Your task to perform on an android device: What's the weather going to be tomorrow? Image 0: 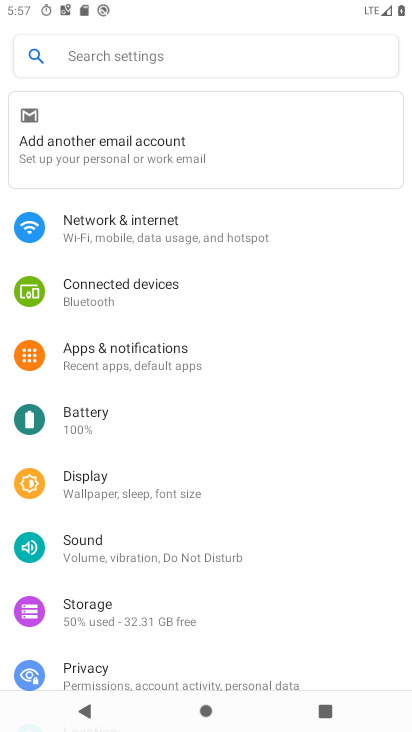
Step 0: press home button
Your task to perform on an android device: What's the weather going to be tomorrow? Image 1: 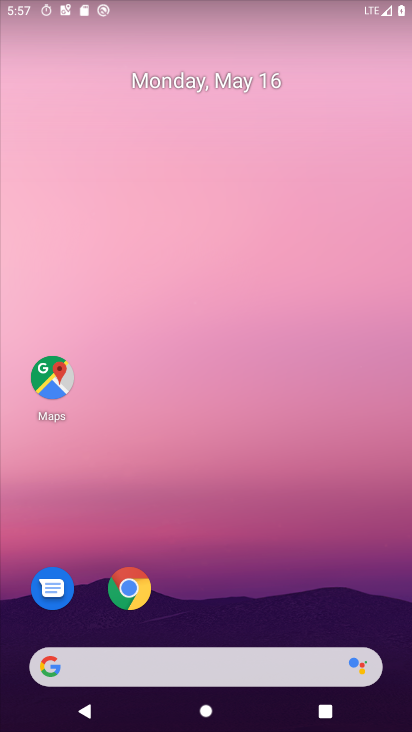
Step 1: drag from (258, 571) to (207, 86)
Your task to perform on an android device: What's the weather going to be tomorrow? Image 2: 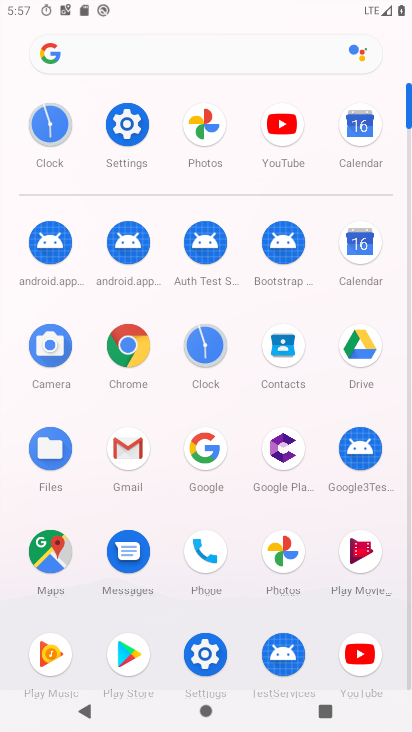
Step 2: click (207, 453)
Your task to perform on an android device: What's the weather going to be tomorrow? Image 3: 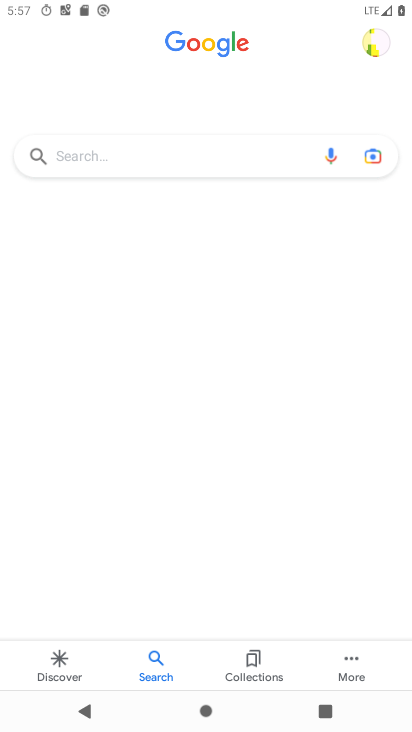
Step 3: click (167, 156)
Your task to perform on an android device: What's the weather going to be tomorrow? Image 4: 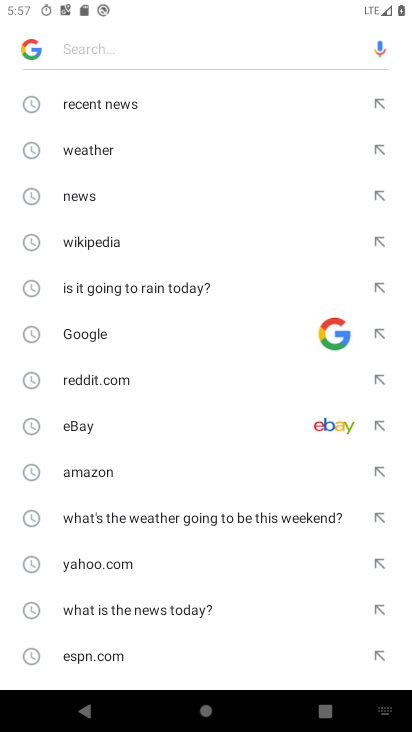
Step 4: click (159, 142)
Your task to perform on an android device: What's the weather going to be tomorrow? Image 5: 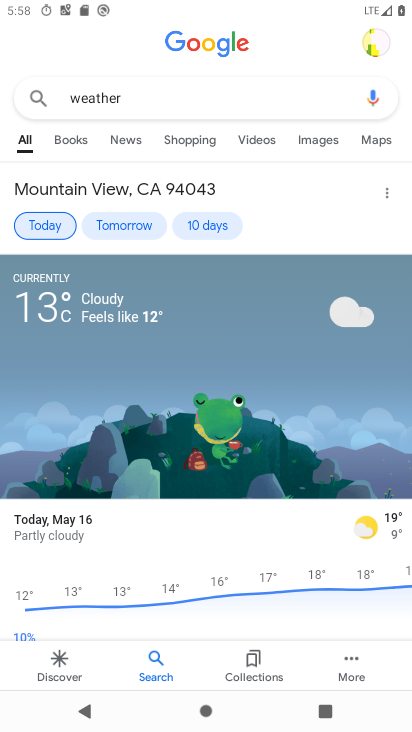
Step 5: click (125, 220)
Your task to perform on an android device: What's the weather going to be tomorrow? Image 6: 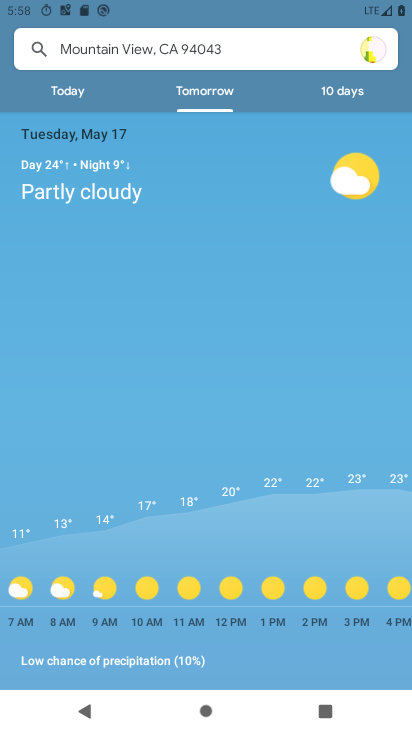
Step 6: task complete